Your task to perform on an android device: turn on priority inbox in the gmail app Image 0: 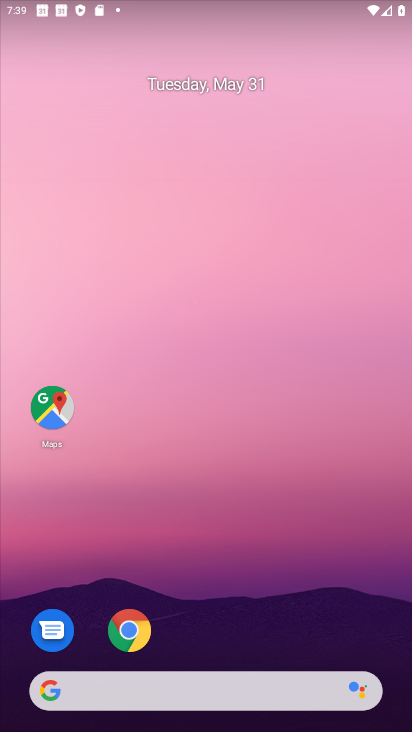
Step 0: drag from (215, 635) to (246, 201)
Your task to perform on an android device: turn on priority inbox in the gmail app Image 1: 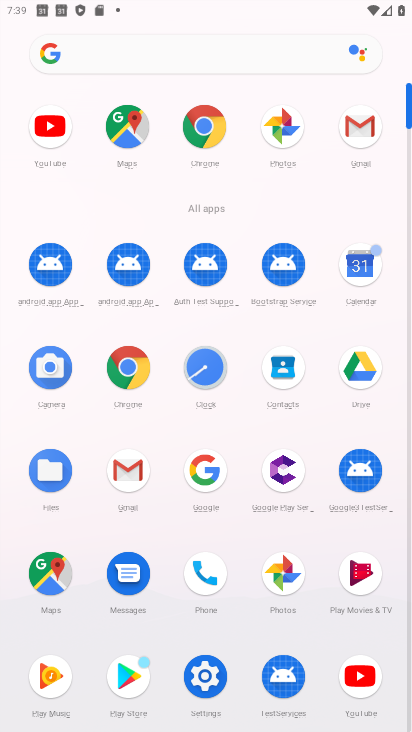
Step 1: click (124, 467)
Your task to perform on an android device: turn on priority inbox in the gmail app Image 2: 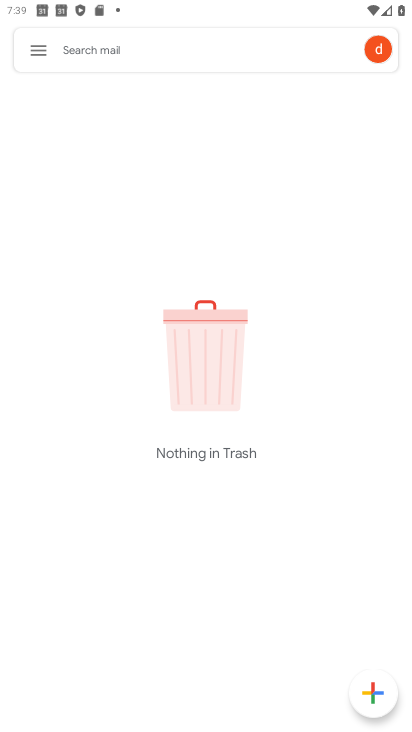
Step 2: press home button
Your task to perform on an android device: turn on priority inbox in the gmail app Image 3: 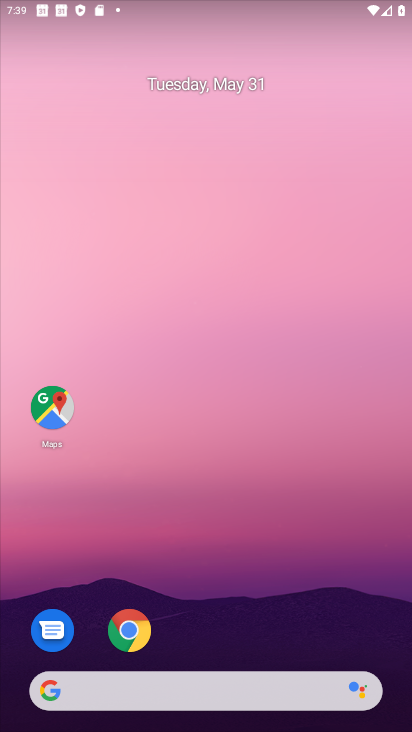
Step 3: drag from (252, 647) to (245, 155)
Your task to perform on an android device: turn on priority inbox in the gmail app Image 4: 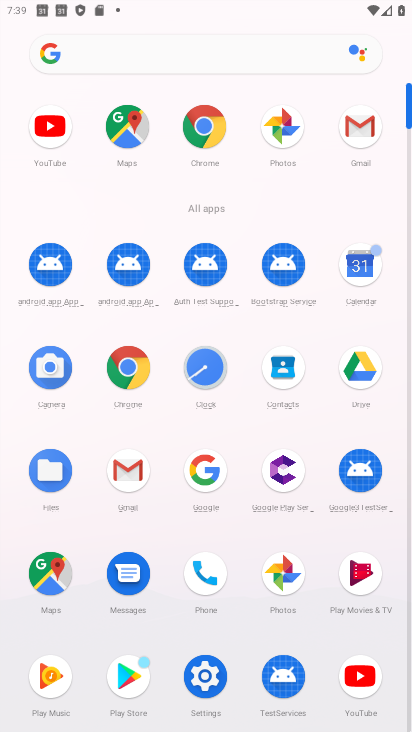
Step 4: click (128, 458)
Your task to perform on an android device: turn on priority inbox in the gmail app Image 5: 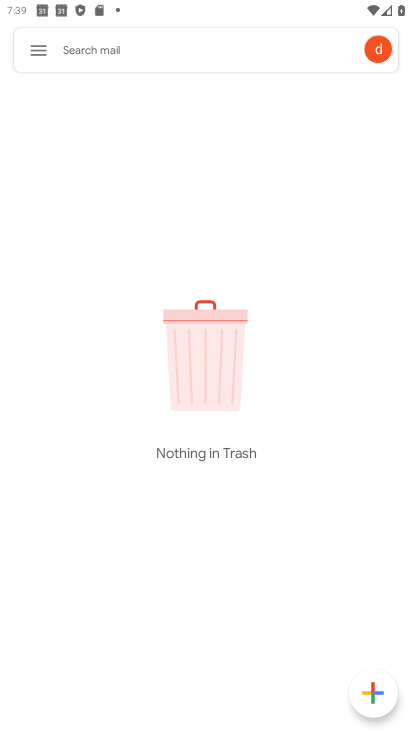
Step 5: click (36, 42)
Your task to perform on an android device: turn on priority inbox in the gmail app Image 6: 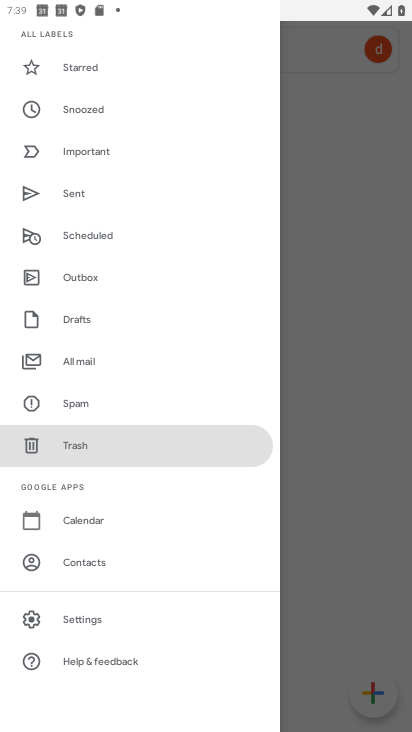
Step 6: click (118, 617)
Your task to perform on an android device: turn on priority inbox in the gmail app Image 7: 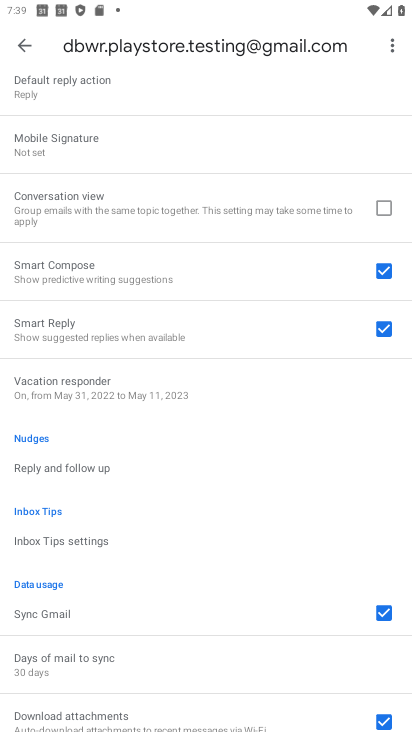
Step 7: drag from (127, 159) to (123, 641)
Your task to perform on an android device: turn on priority inbox in the gmail app Image 8: 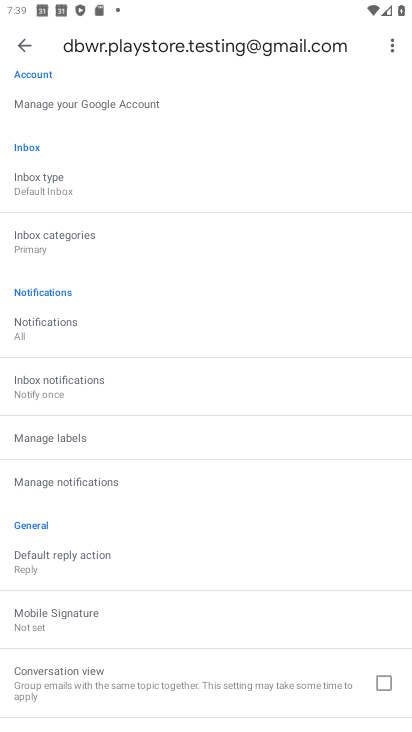
Step 8: click (71, 179)
Your task to perform on an android device: turn on priority inbox in the gmail app Image 9: 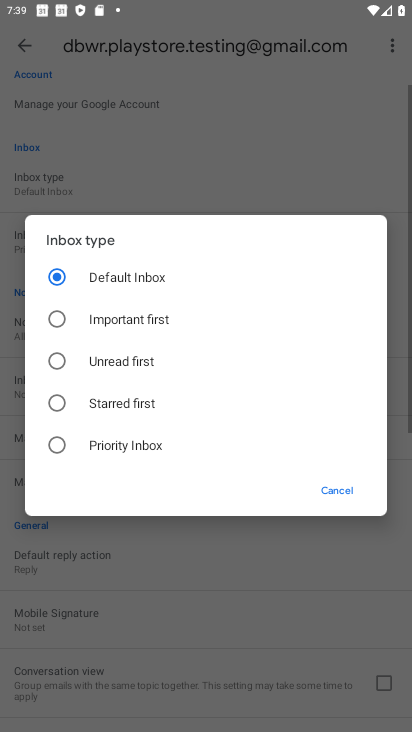
Step 9: click (107, 436)
Your task to perform on an android device: turn on priority inbox in the gmail app Image 10: 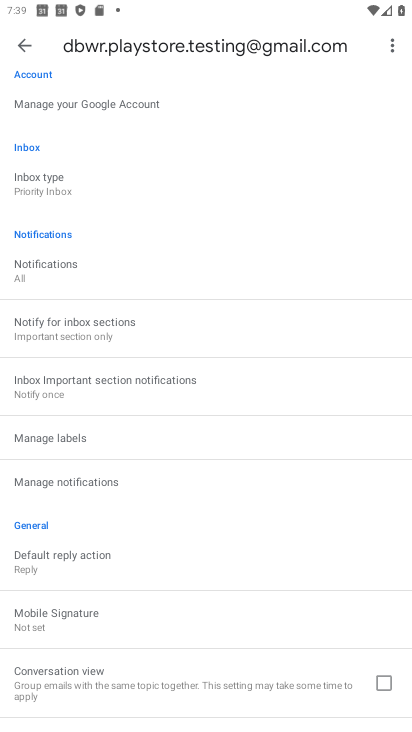
Step 10: task complete